Your task to perform on an android device: Open location settings Image 0: 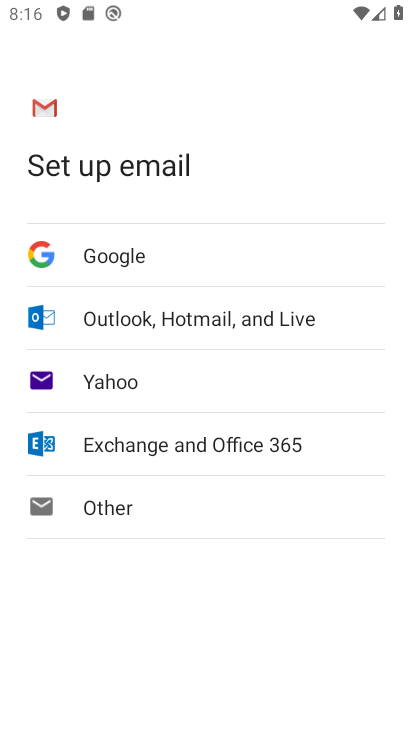
Step 0: press home button
Your task to perform on an android device: Open location settings Image 1: 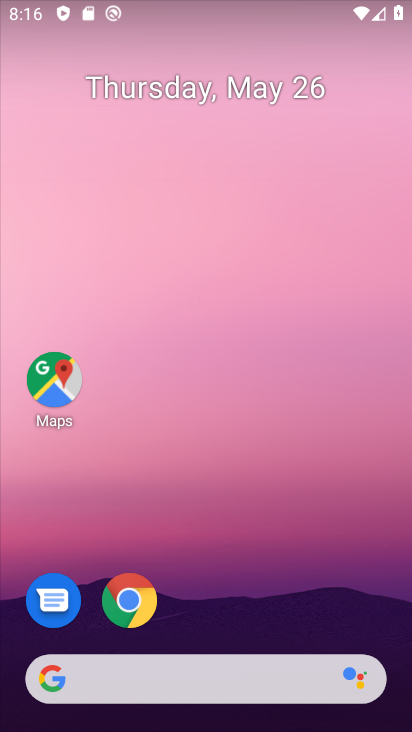
Step 1: drag from (203, 631) to (204, 104)
Your task to perform on an android device: Open location settings Image 2: 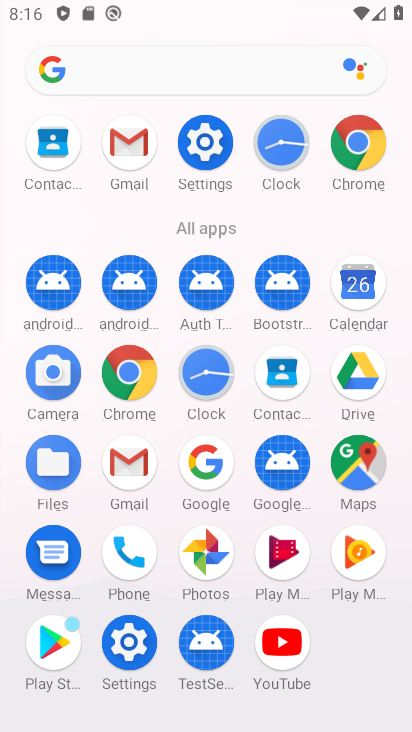
Step 2: click (204, 107)
Your task to perform on an android device: Open location settings Image 3: 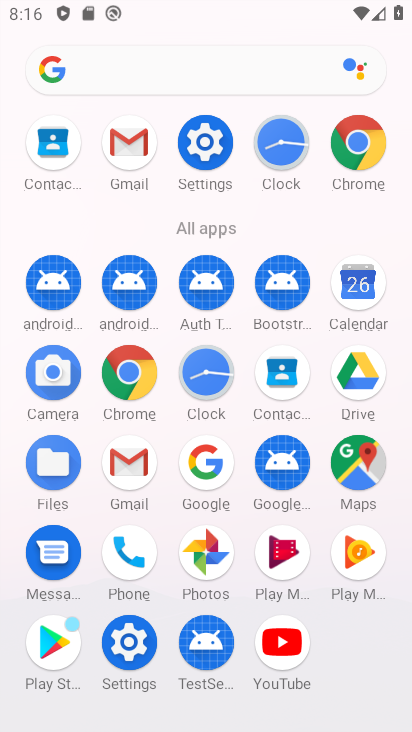
Step 3: click (206, 126)
Your task to perform on an android device: Open location settings Image 4: 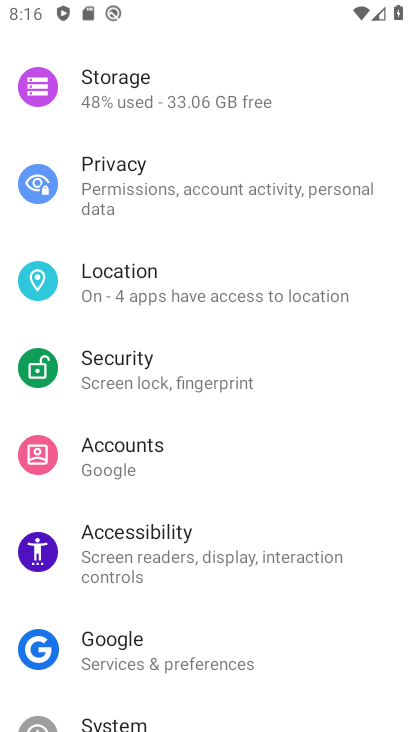
Step 4: click (80, 311)
Your task to perform on an android device: Open location settings Image 5: 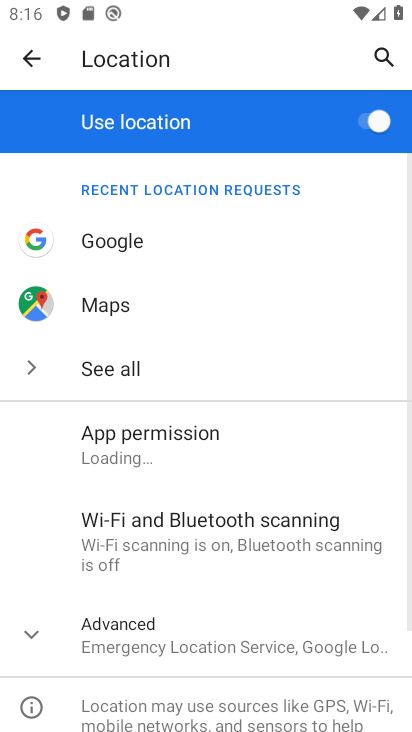
Step 5: task complete